Your task to perform on an android device: open a bookmark in the chrome app Image 0: 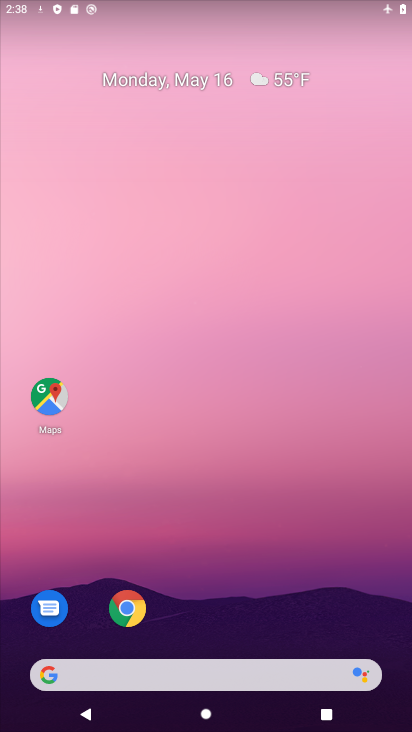
Step 0: click (137, 619)
Your task to perform on an android device: open a bookmark in the chrome app Image 1: 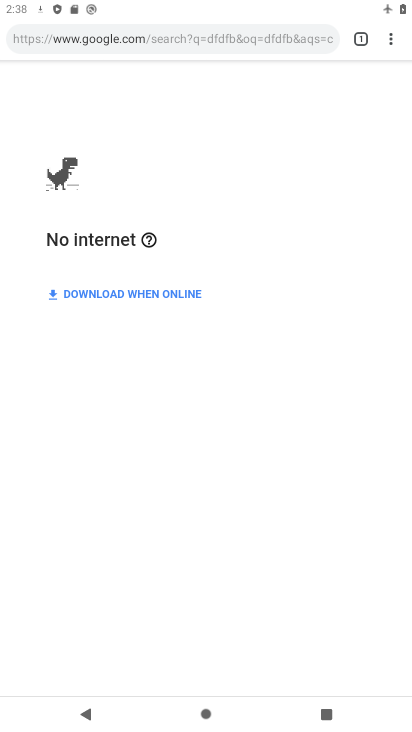
Step 1: task complete